Your task to perform on an android device: open the mobile data screen to see how much data has been used Image 0: 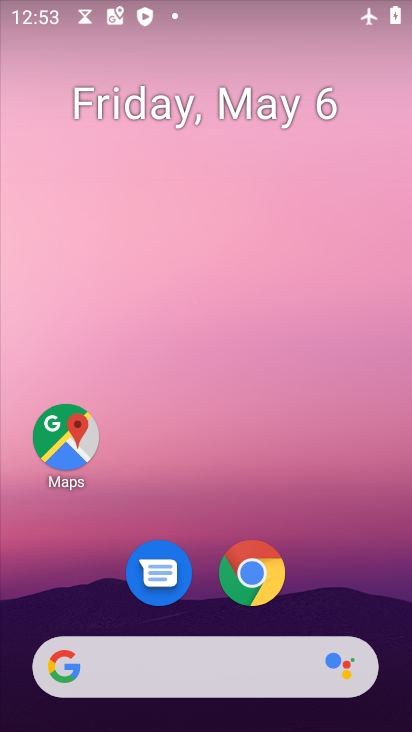
Step 0: drag from (308, 594) to (351, 300)
Your task to perform on an android device: open the mobile data screen to see how much data has been used Image 1: 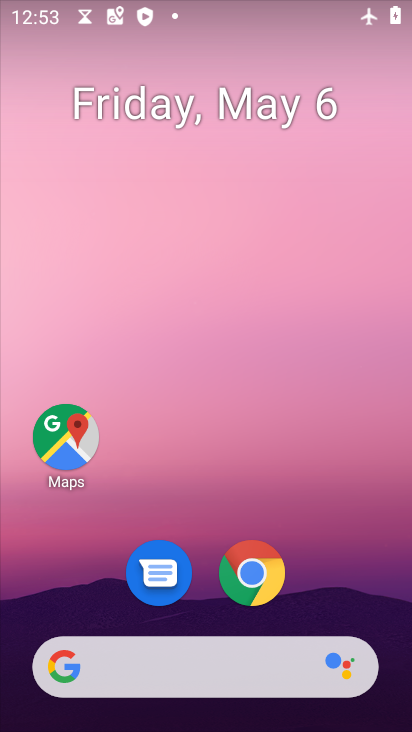
Step 1: drag from (295, 563) to (340, 229)
Your task to perform on an android device: open the mobile data screen to see how much data has been used Image 2: 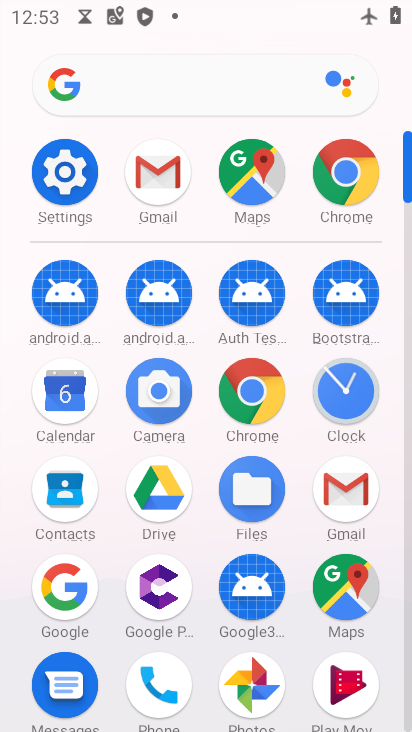
Step 2: click (59, 163)
Your task to perform on an android device: open the mobile data screen to see how much data has been used Image 3: 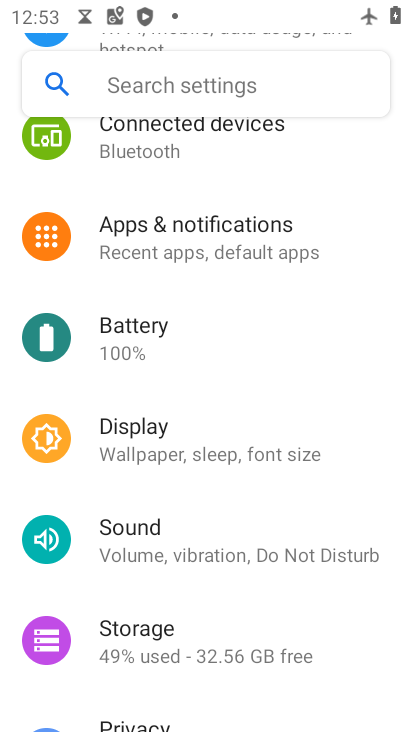
Step 3: drag from (261, 173) to (252, 531)
Your task to perform on an android device: open the mobile data screen to see how much data has been used Image 4: 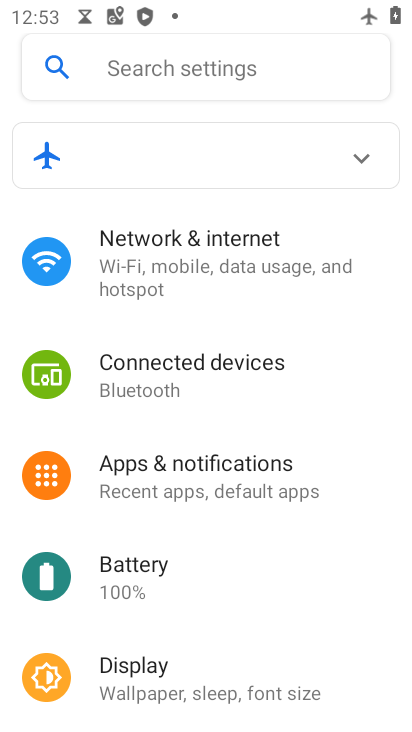
Step 4: click (203, 278)
Your task to perform on an android device: open the mobile data screen to see how much data has been used Image 5: 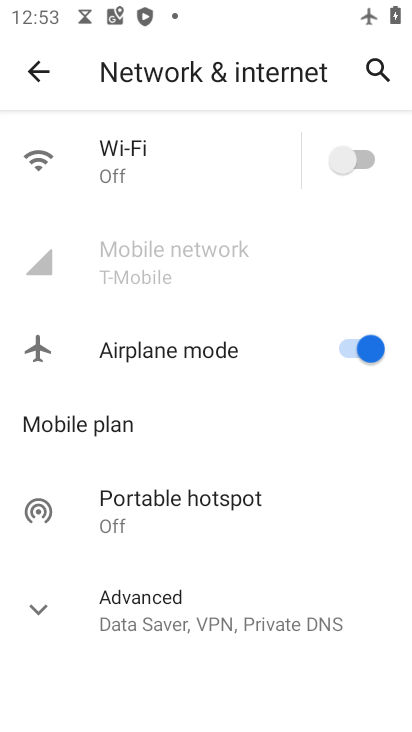
Step 5: click (216, 623)
Your task to perform on an android device: open the mobile data screen to see how much data has been used Image 6: 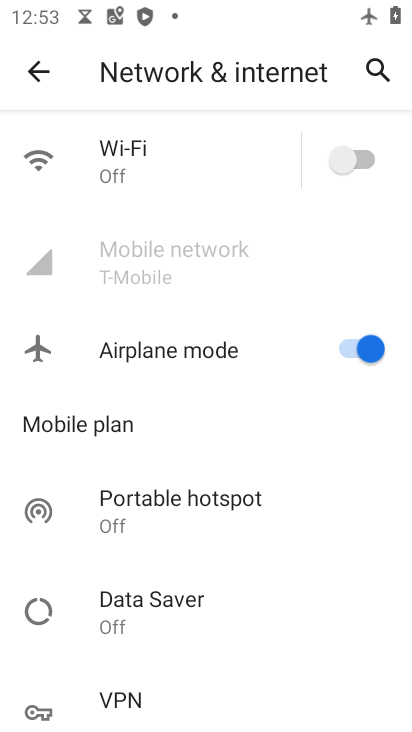
Step 6: drag from (178, 622) to (239, 476)
Your task to perform on an android device: open the mobile data screen to see how much data has been used Image 7: 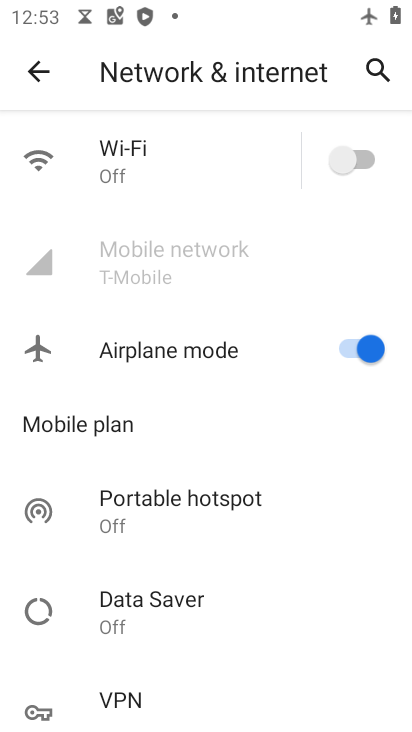
Step 7: click (153, 255)
Your task to perform on an android device: open the mobile data screen to see how much data has been used Image 8: 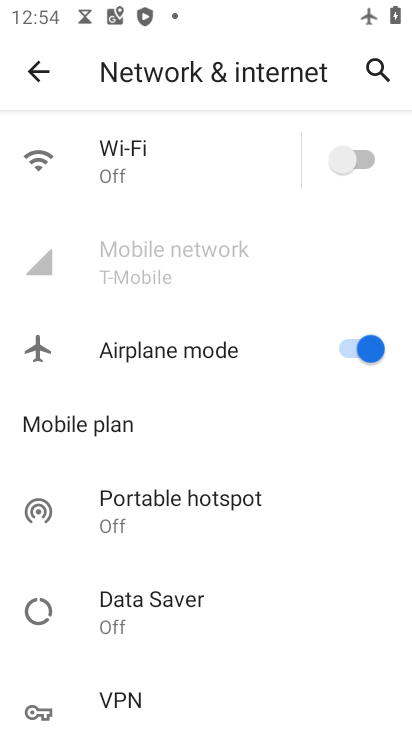
Step 8: task complete